Your task to perform on an android device: turn off wifi Image 0: 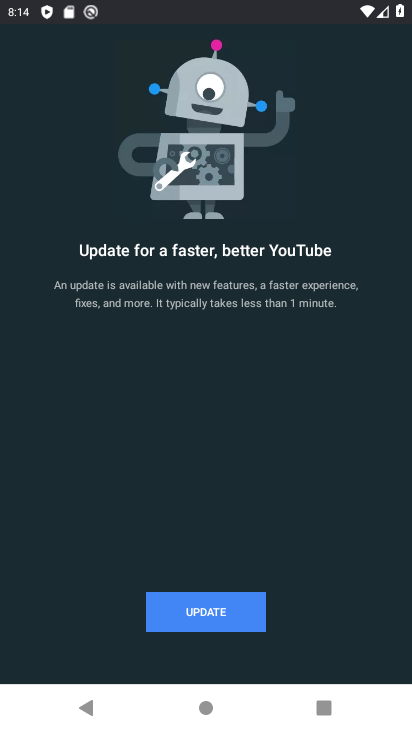
Step 0: press back button
Your task to perform on an android device: turn off wifi Image 1: 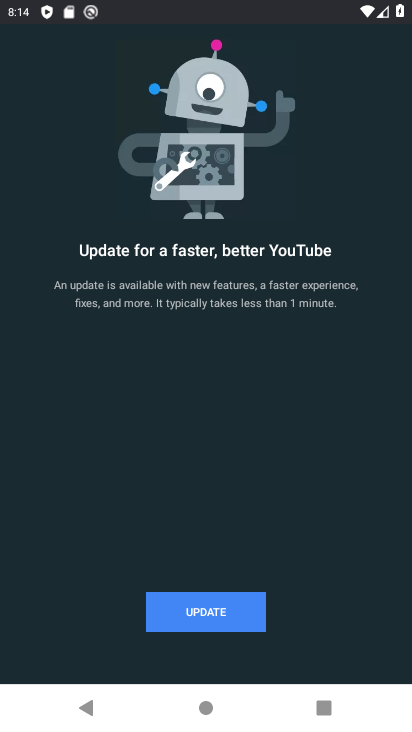
Step 1: press back button
Your task to perform on an android device: turn off wifi Image 2: 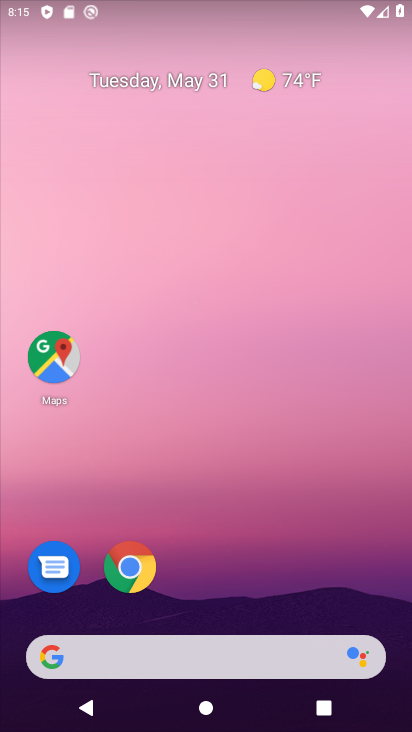
Step 2: drag from (281, 513) to (305, 70)
Your task to perform on an android device: turn off wifi Image 3: 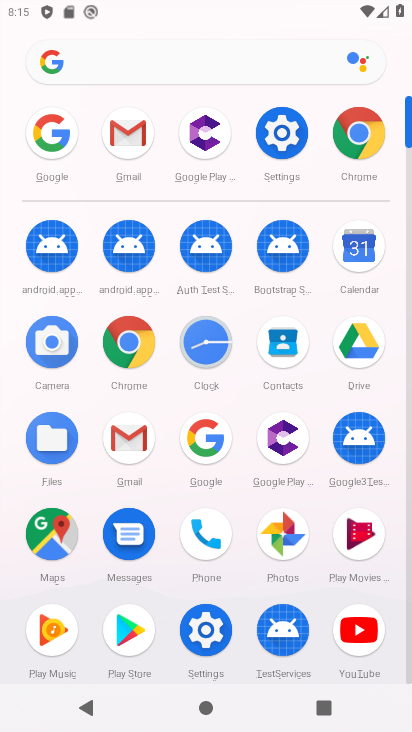
Step 3: click (282, 131)
Your task to perform on an android device: turn off wifi Image 4: 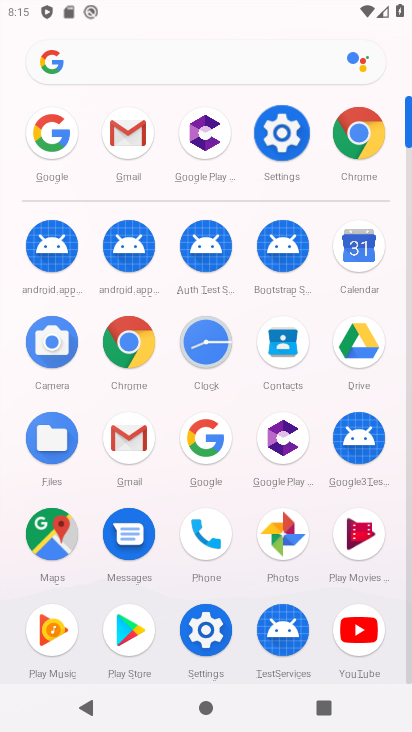
Step 4: click (282, 130)
Your task to perform on an android device: turn off wifi Image 5: 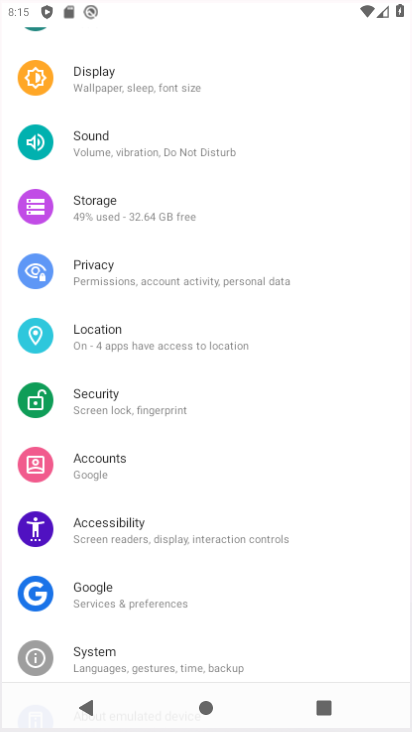
Step 5: click (282, 130)
Your task to perform on an android device: turn off wifi Image 6: 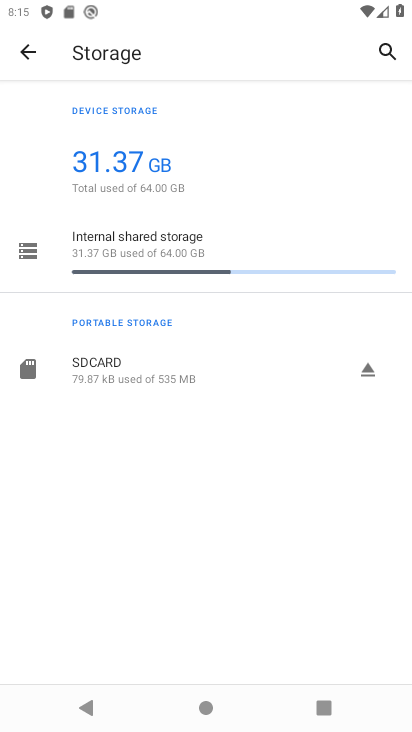
Step 6: click (42, 50)
Your task to perform on an android device: turn off wifi Image 7: 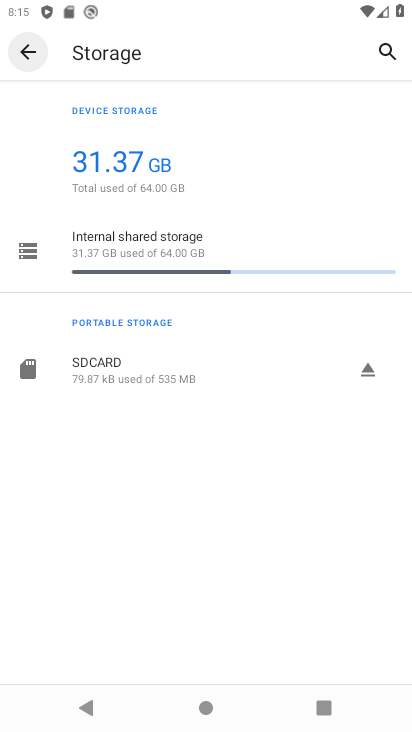
Step 7: click (15, 54)
Your task to perform on an android device: turn off wifi Image 8: 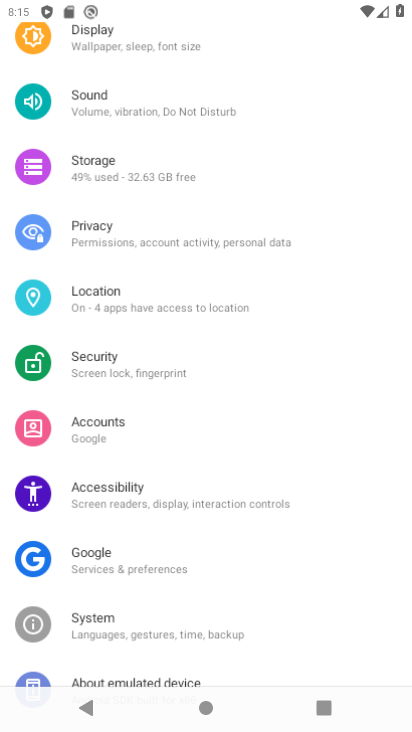
Step 8: click (15, 54)
Your task to perform on an android device: turn off wifi Image 9: 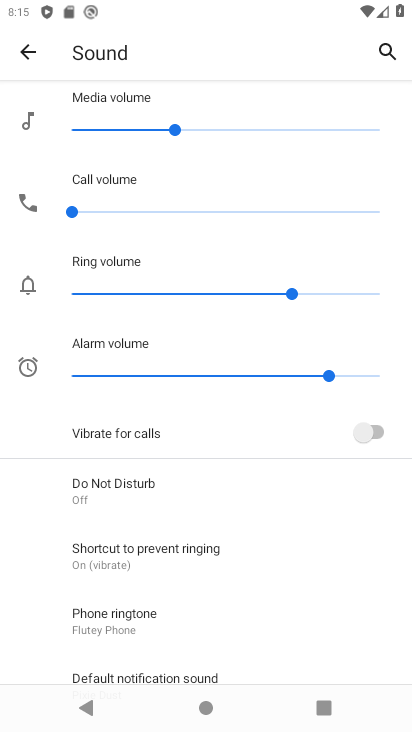
Step 9: press home button
Your task to perform on an android device: turn off wifi Image 10: 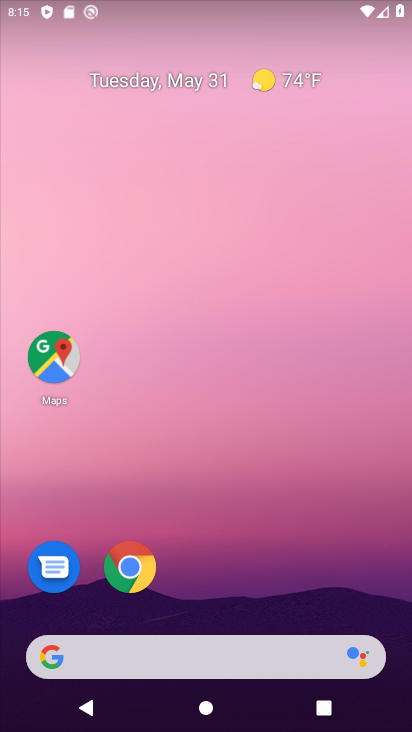
Step 10: drag from (270, 479) to (279, 25)
Your task to perform on an android device: turn off wifi Image 11: 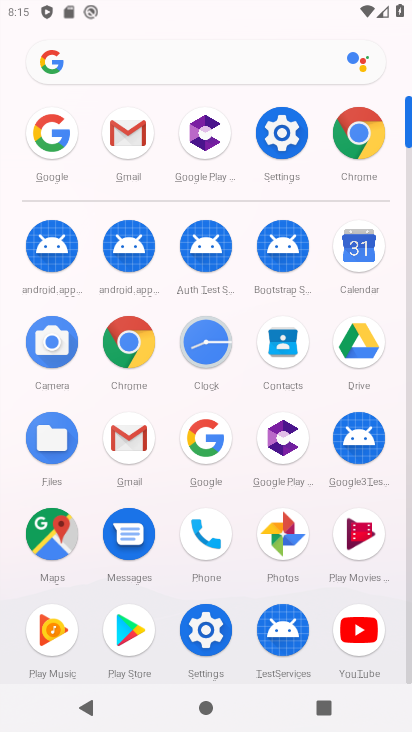
Step 11: click (282, 131)
Your task to perform on an android device: turn off wifi Image 12: 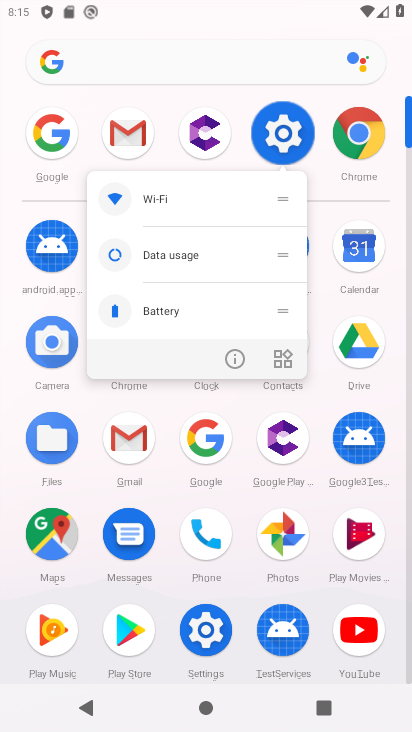
Step 12: click (280, 133)
Your task to perform on an android device: turn off wifi Image 13: 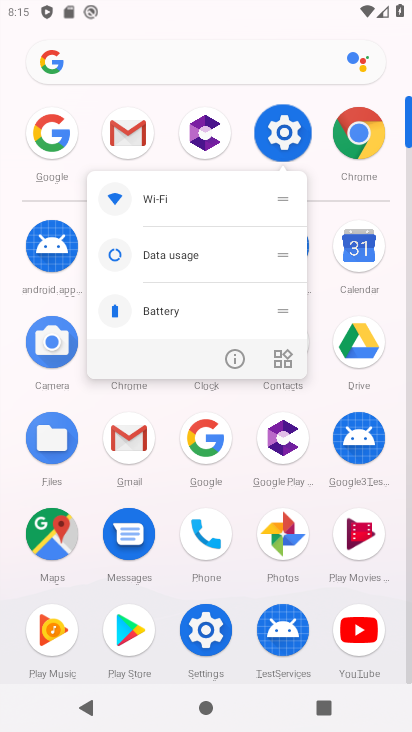
Step 13: click (280, 133)
Your task to perform on an android device: turn off wifi Image 14: 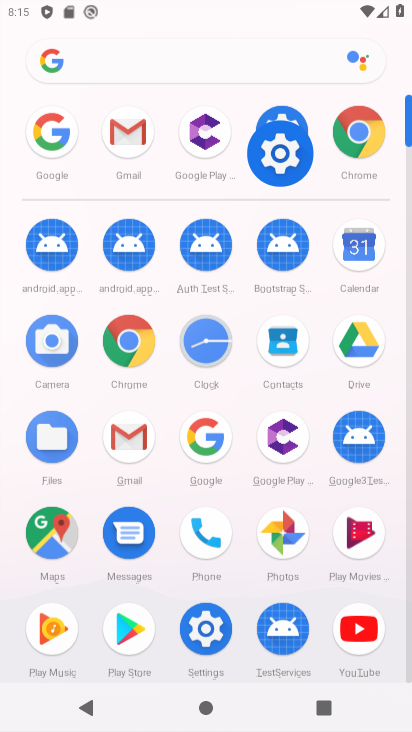
Step 14: click (280, 133)
Your task to perform on an android device: turn off wifi Image 15: 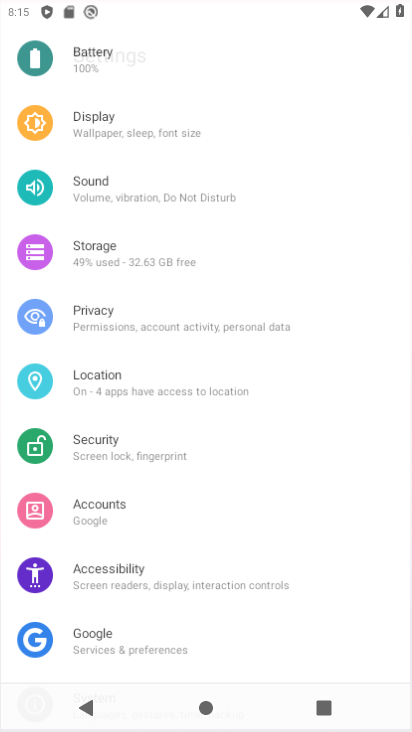
Step 15: click (280, 133)
Your task to perform on an android device: turn off wifi Image 16: 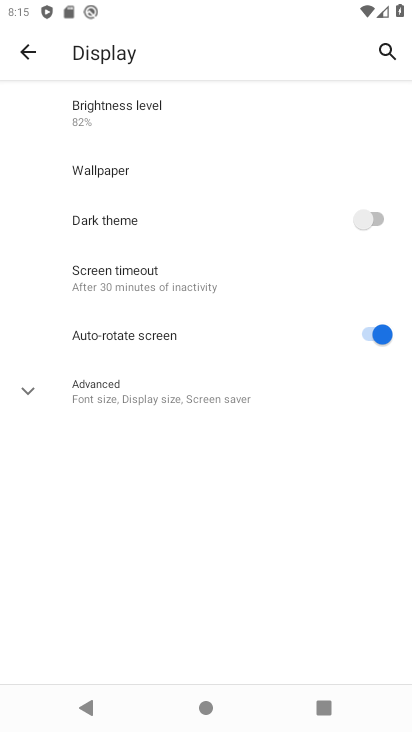
Step 16: drag from (190, 154) to (264, 433)
Your task to perform on an android device: turn off wifi Image 17: 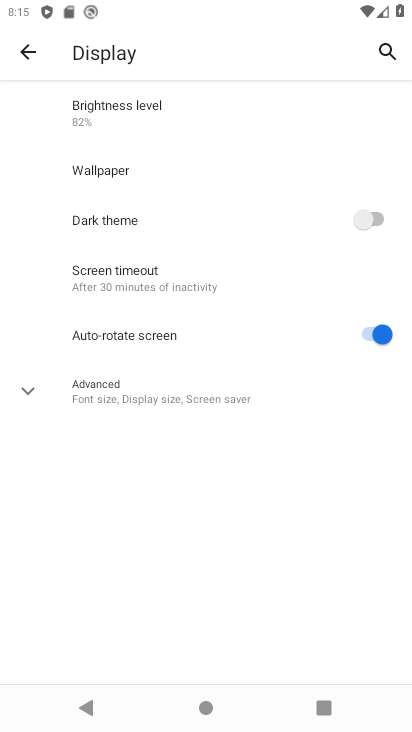
Step 17: click (22, 53)
Your task to perform on an android device: turn off wifi Image 18: 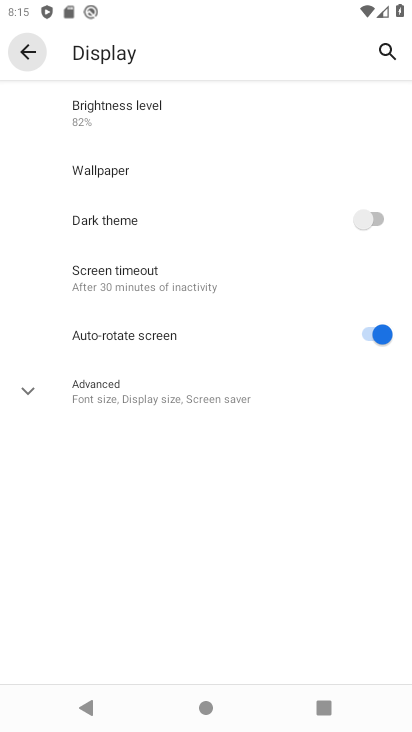
Step 18: click (26, 51)
Your task to perform on an android device: turn off wifi Image 19: 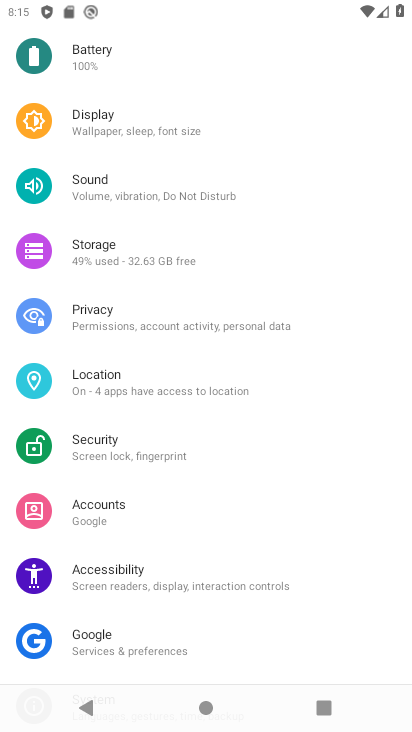
Step 19: drag from (165, 311) to (192, 438)
Your task to perform on an android device: turn off wifi Image 20: 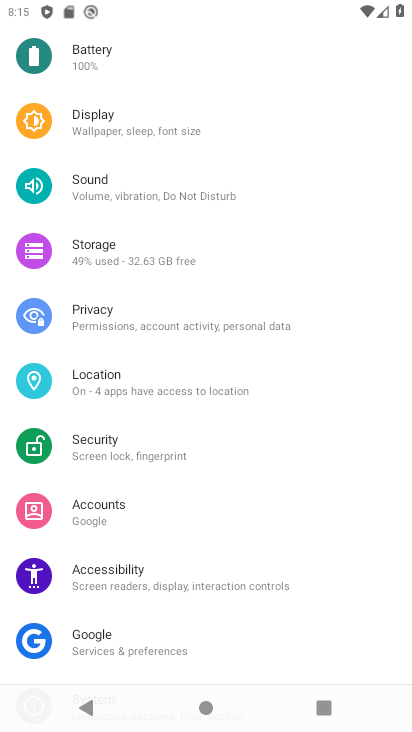
Step 20: drag from (168, 146) to (182, 418)
Your task to perform on an android device: turn off wifi Image 21: 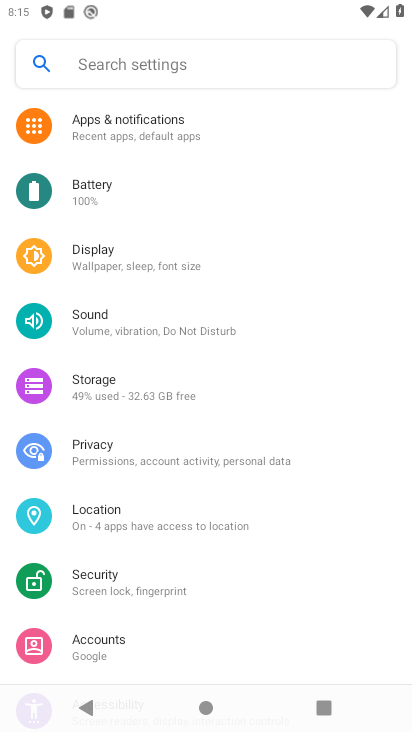
Step 21: drag from (187, 146) to (256, 634)
Your task to perform on an android device: turn off wifi Image 22: 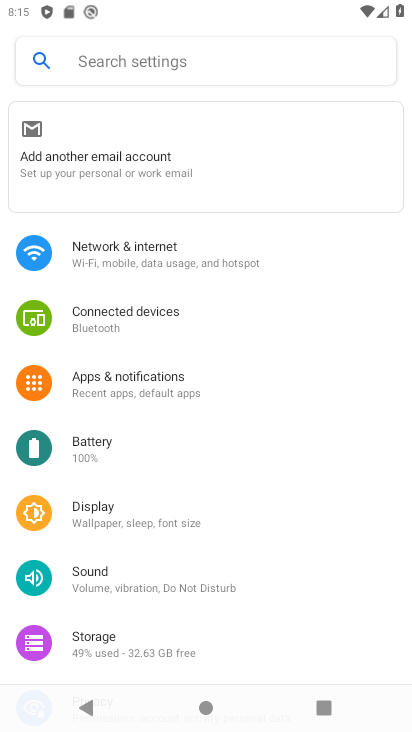
Step 22: click (126, 265)
Your task to perform on an android device: turn off wifi Image 23: 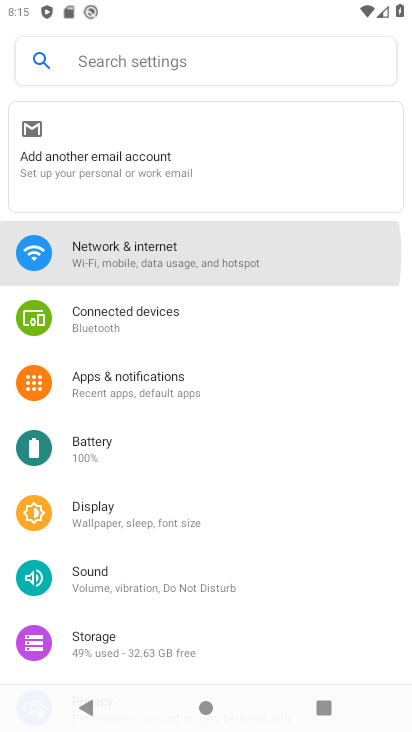
Step 23: click (130, 259)
Your task to perform on an android device: turn off wifi Image 24: 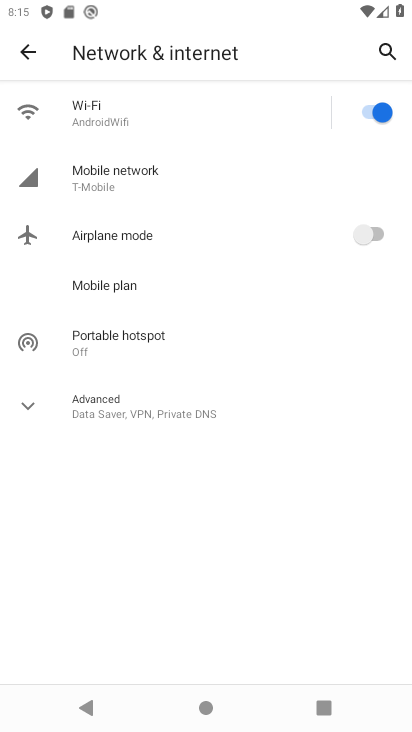
Step 24: click (371, 111)
Your task to perform on an android device: turn off wifi Image 25: 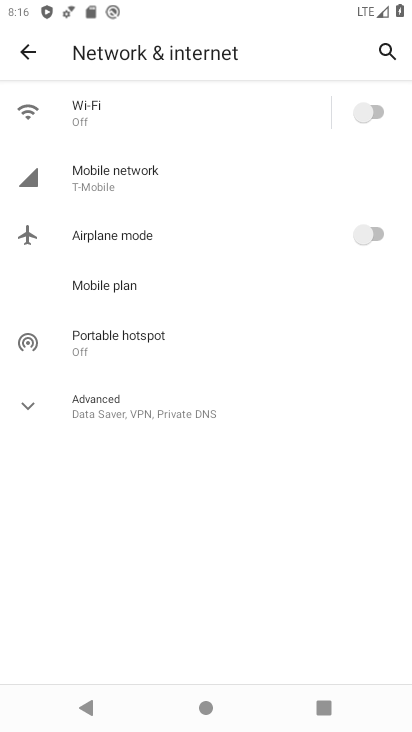
Step 25: task complete